Your task to perform on an android device: set default search engine in the chrome app Image 0: 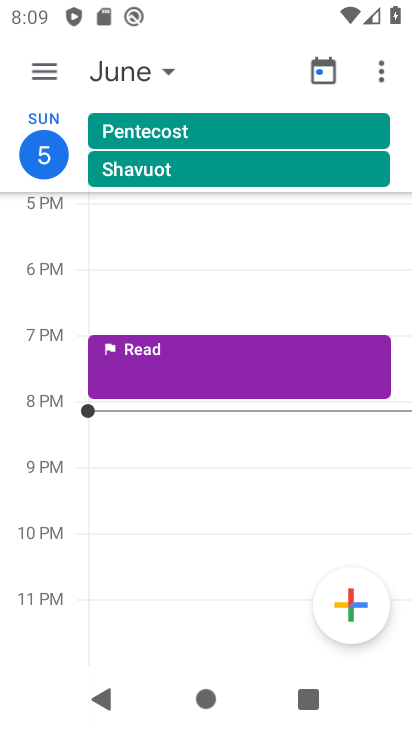
Step 0: press home button
Your task to perform on an android device: set default search engine in the chrome app Image 1: 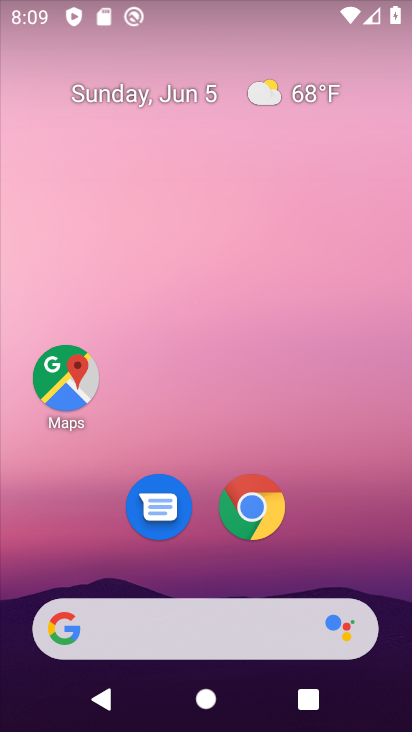
Step 1: click (259, 514)
Your task to perform on an android device: set default search engine in the chrome app Image 2: 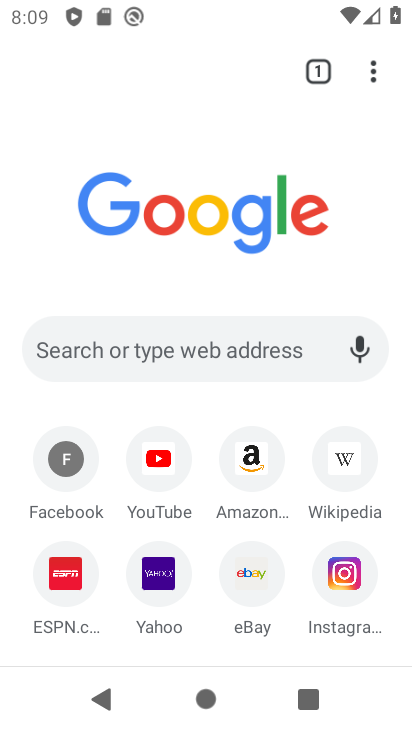
Step 2: click (374, 78)
Your task to perform on an android device: set default search engine in the chrome app Image 3: 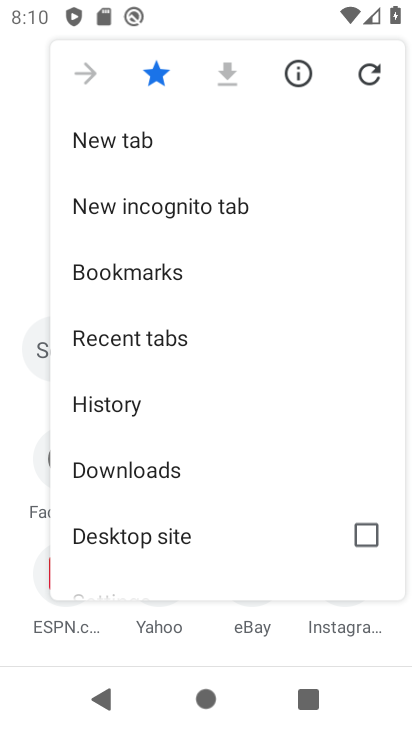
Step 3: drag from (110, 487) to (188, 125)
Your task to perform on an android device: set default search engine in the chrome app Image 4: 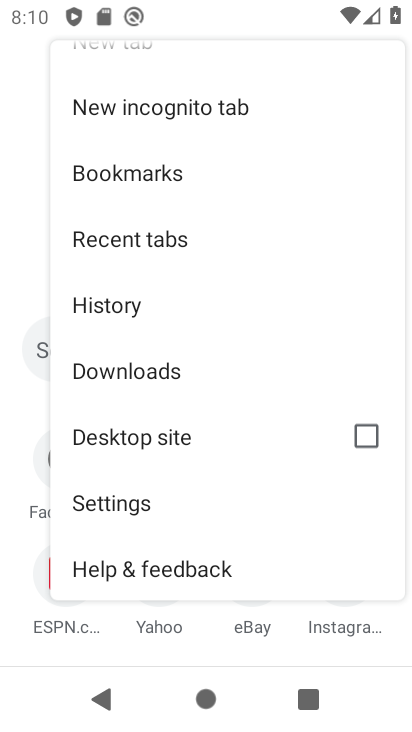
Step 4: click (113, 503)
Your task to perform on an android device: set default search engine in the chrome app Image 5: 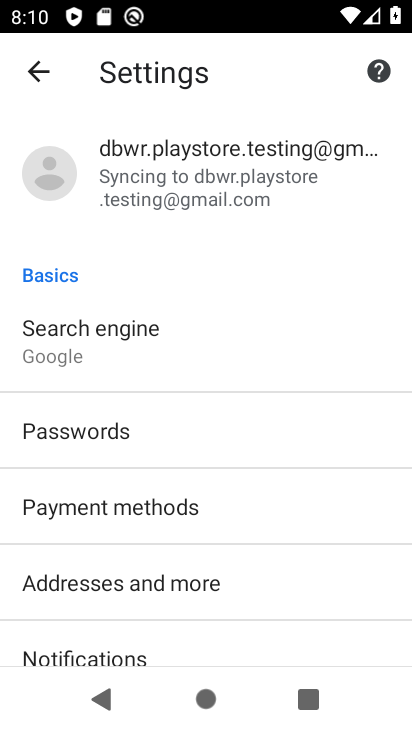
Step 5: click (104, 362)
Your task to perform on an android device: set default search engine in the chrome app Image 6: 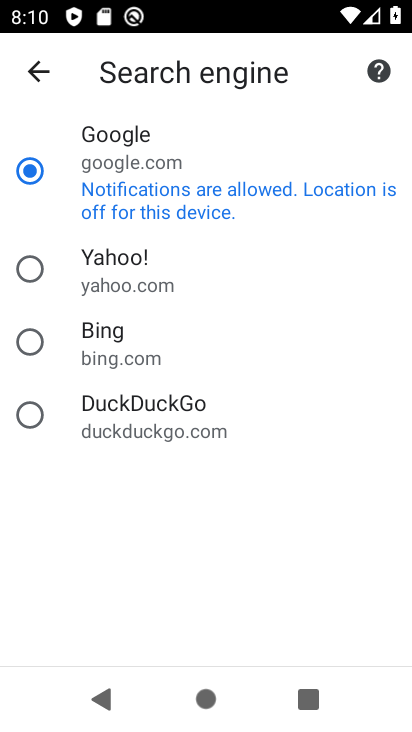
Step 6: click (178, 197)
Your task to perform on an android device: set default search engine in the chrome app Image 7: 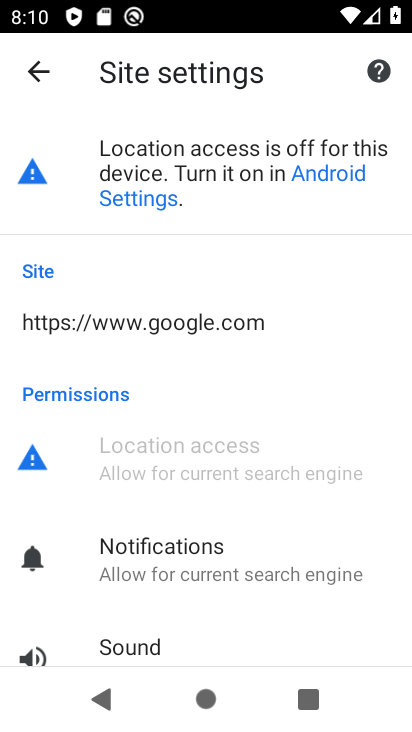
Step 7: drag from (201, 428) to (269, 7)
Your task to perform on an android device: set default search engine in the chrome app Image 8: 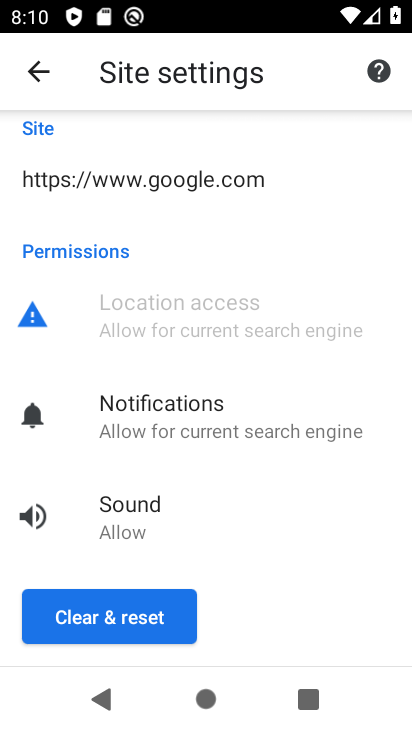
Step 8: click (111, 624)
Your task to perform on an android device: set default search engine in the chrome app Image 9: 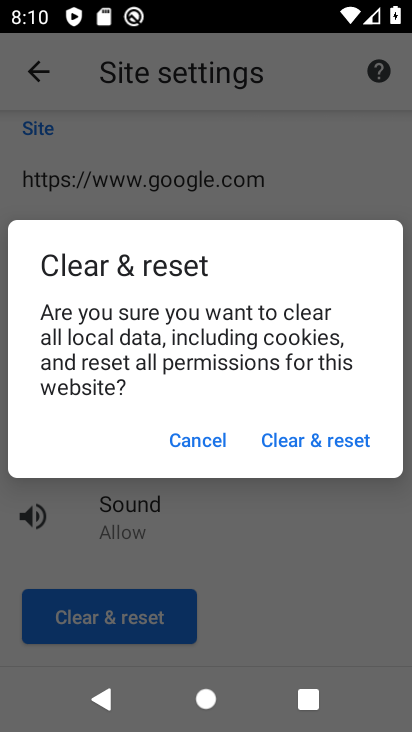
Step 9: click (318, 438)
Your task to perform on an android device: set default search engine in the chrome app Image 10: 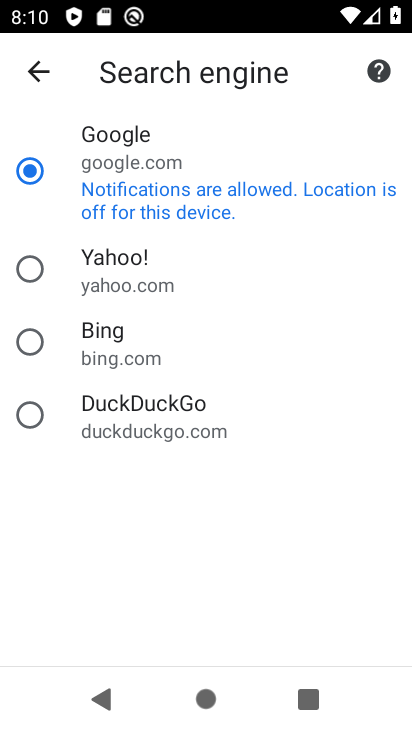
Step 10: task complete